Your task to perform on an android device: turn off improve location accuracy Image 0: 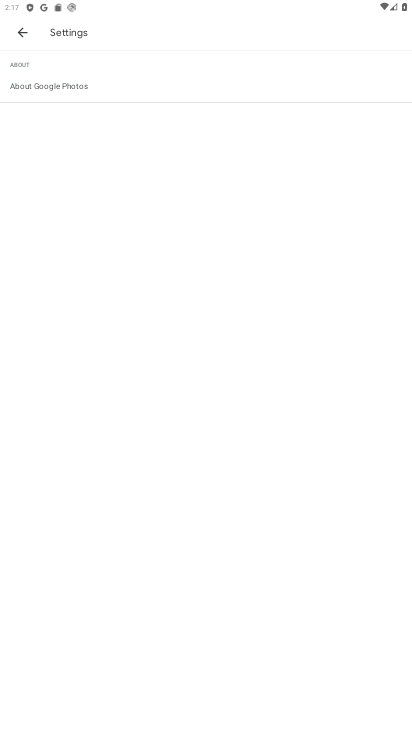
Step 0: press home button
Your task to perform on an android device: turn off improve location accuracy Image 1: 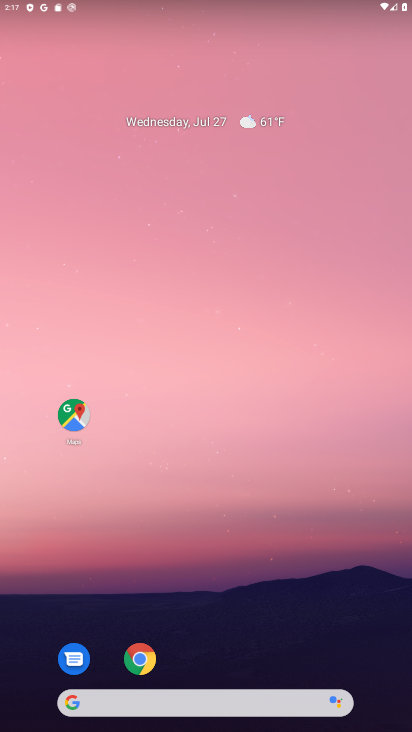
Step 1: drag from (199, 690) to (166, 213)
Your task to perform on an android device: turn off improve location accuracy Image 2: 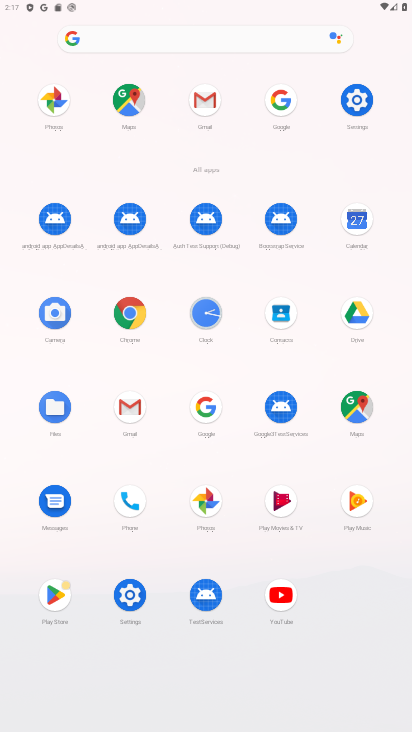
Step 2: click (357, 89)
Your task to perform on an android device: turn off improve location accuracy Image 3: 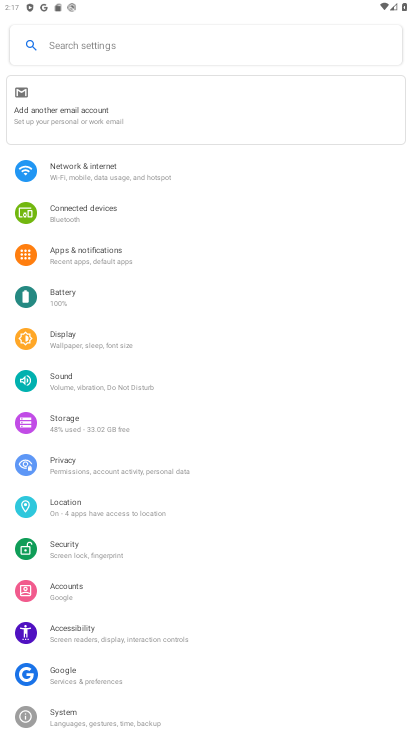
Step 3: click (63, 509)
Your task to perform on an android device: turn off improve location accuracy Image 4: 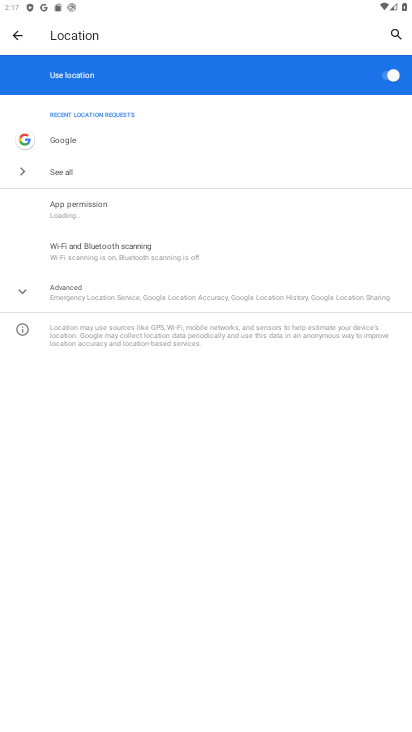
Step 4: click (92, 290)
Your task to perform on an android device: turn off improve location accuracy Image 5: 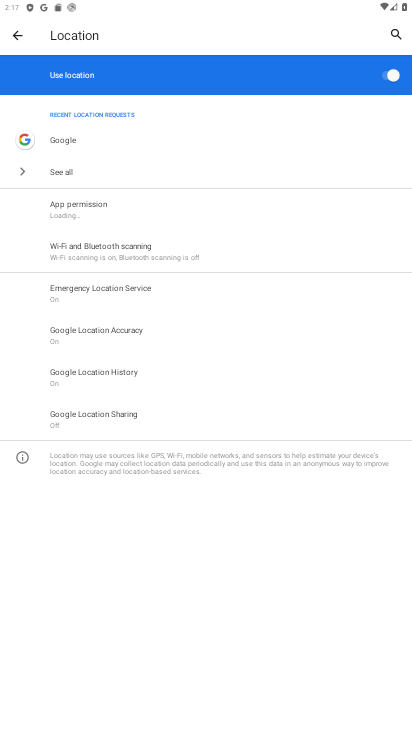
Step 5: click (113, 335)
Your task to perform on an android device: turn off improve location accuracy Image 6: 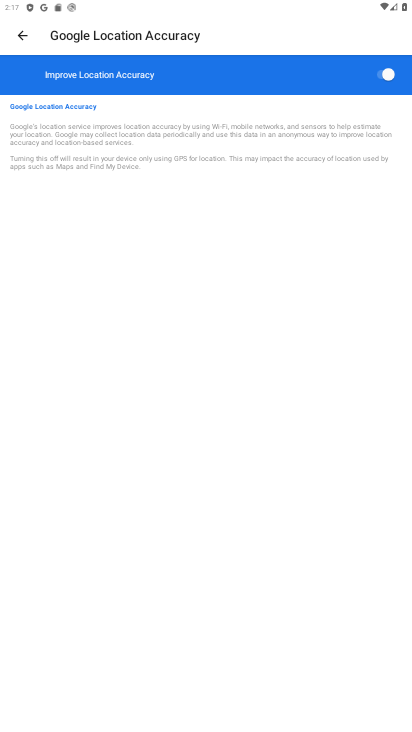
Step 6: click (375, 78)
Your task to perform on an android device: turn off improve location accuracy Image 7: 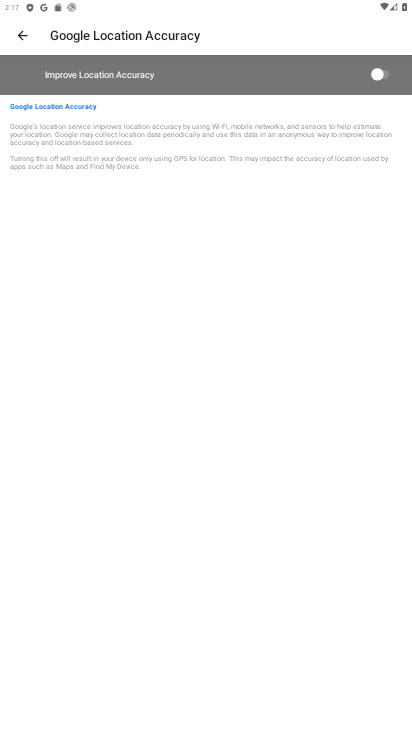
Step 7: task complete